Your task to perform on an android device: check storage Image 0: 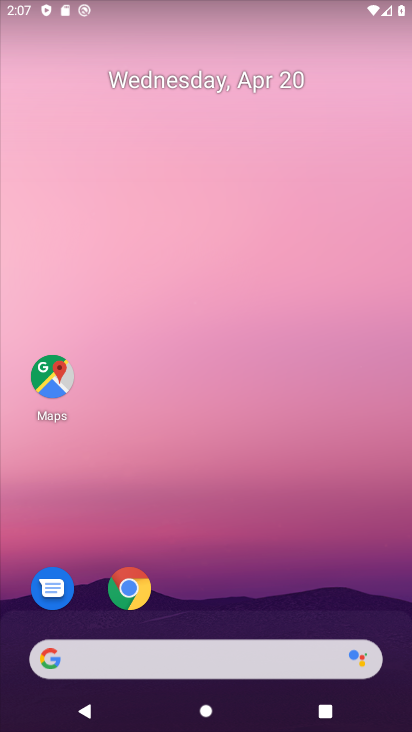
Step 0: drag from (187, 530) to (282, 69)
Your task to perform on an android device: check storage Image 1: 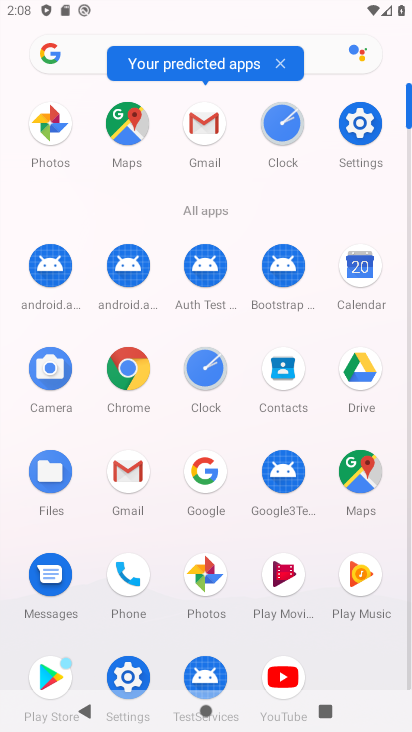
Step 1: click (367, 130)
Your task to perform on an android device: check storage Image 2: 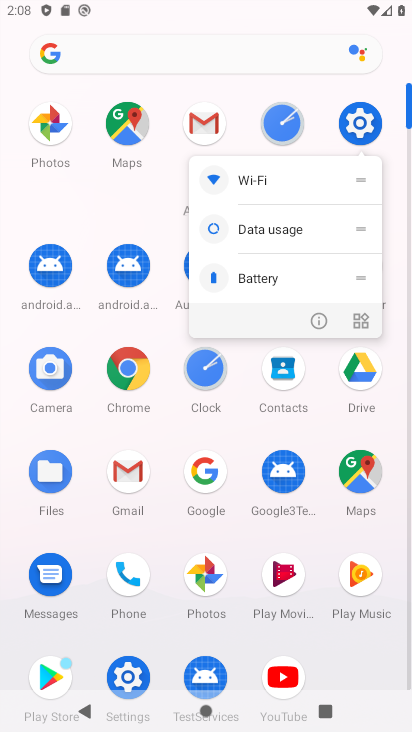
Step 2: click (366, 120)
Your task to perform on an android device: check storage Image 3: 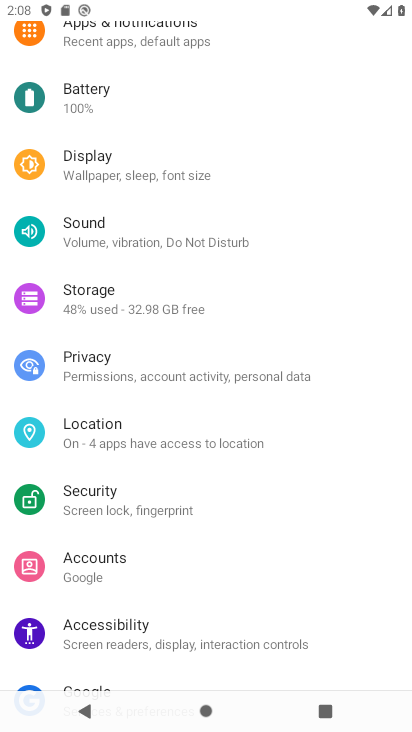
Step 3: click (125, 302)
Your task to perform on an android device: check storage Image 4: 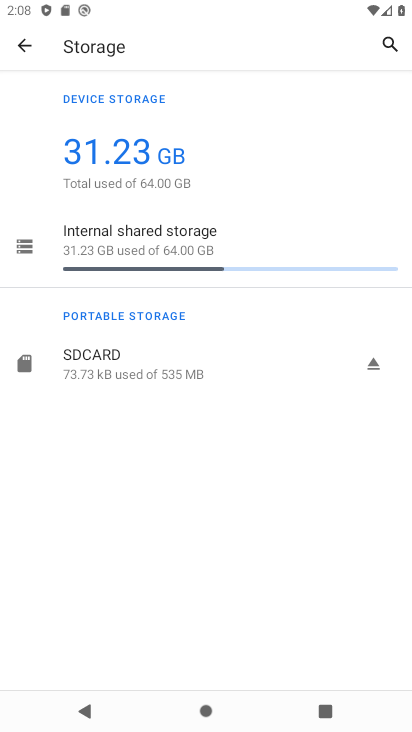
Step 4: click (203, 253)
Your task to perform on an android device: check storage Image 5: 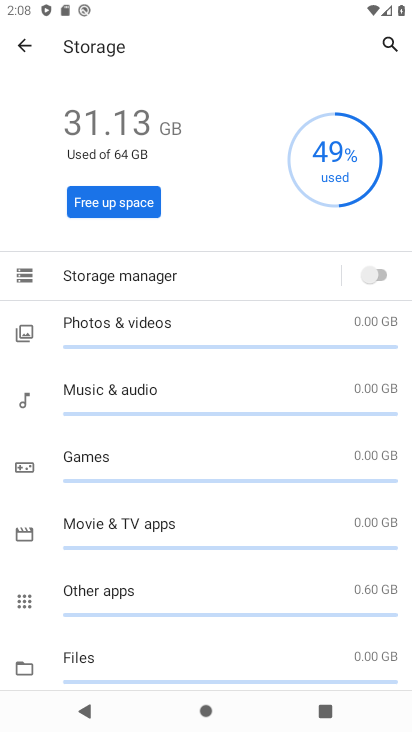
Step 5: task complete